Your task to perform on an android device: Open sound settings Image 0: 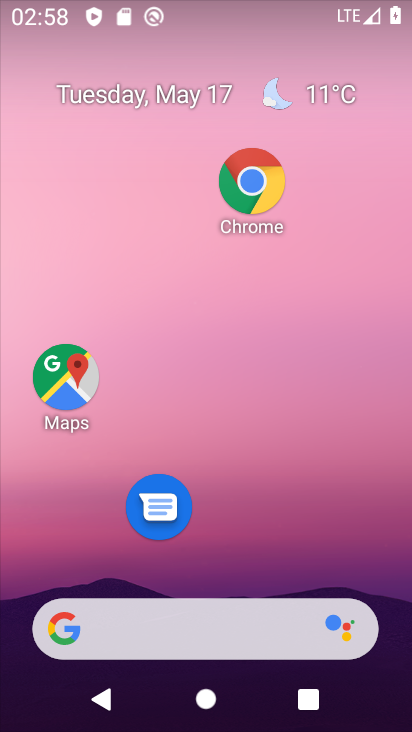
Step 0: drag from (242, 528) to (270, 362)
Your task to perform on an android device: Open sound settings Image 1: 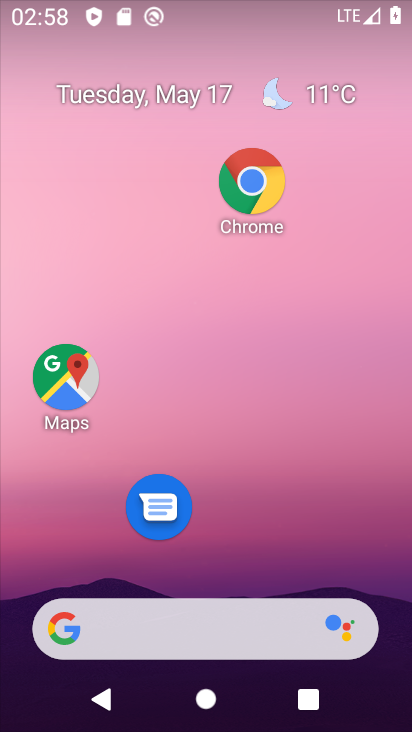
Step 1: drag from (246, 575) to (322, 119)
Your task to perform on an android device: Open sound settings Image 2: 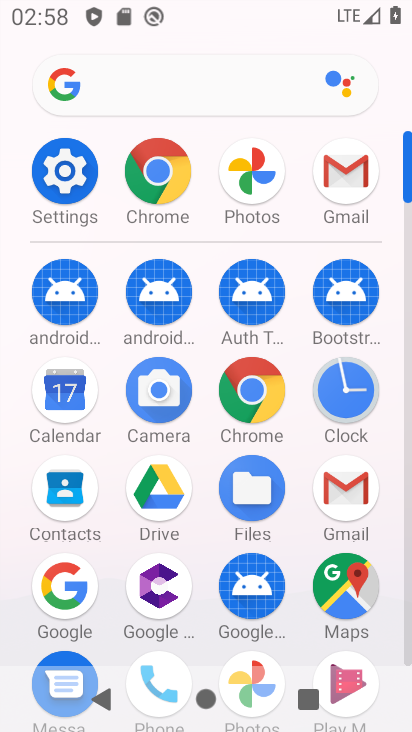
Step 2: click (34, 177)
Your task to perform on an android device: Open sound settings Image 3: 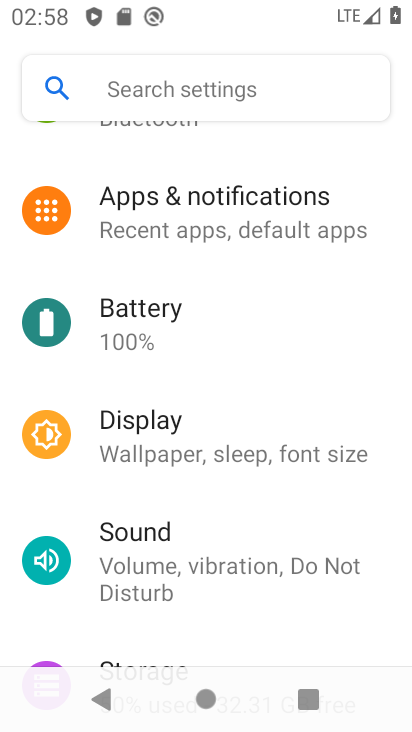
Step 3: click (169, 528)
Your task to perform on an android device: Open sound settings Image 4: 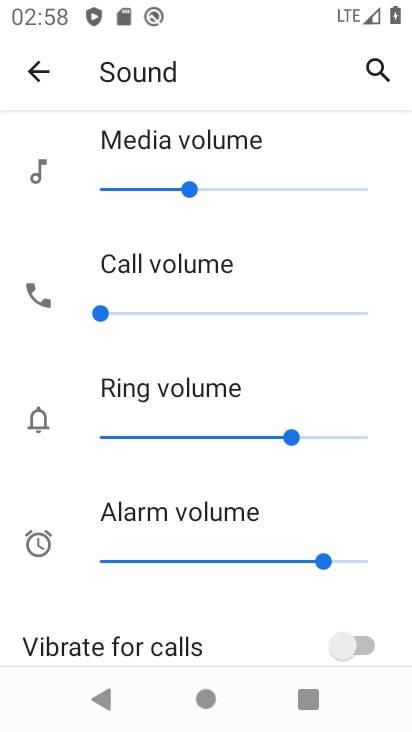
Step 4: task complete